Your task to perform on an android device: open app "Microsoft Authenticator" (install if not already installed) and go to login screen Image 0: 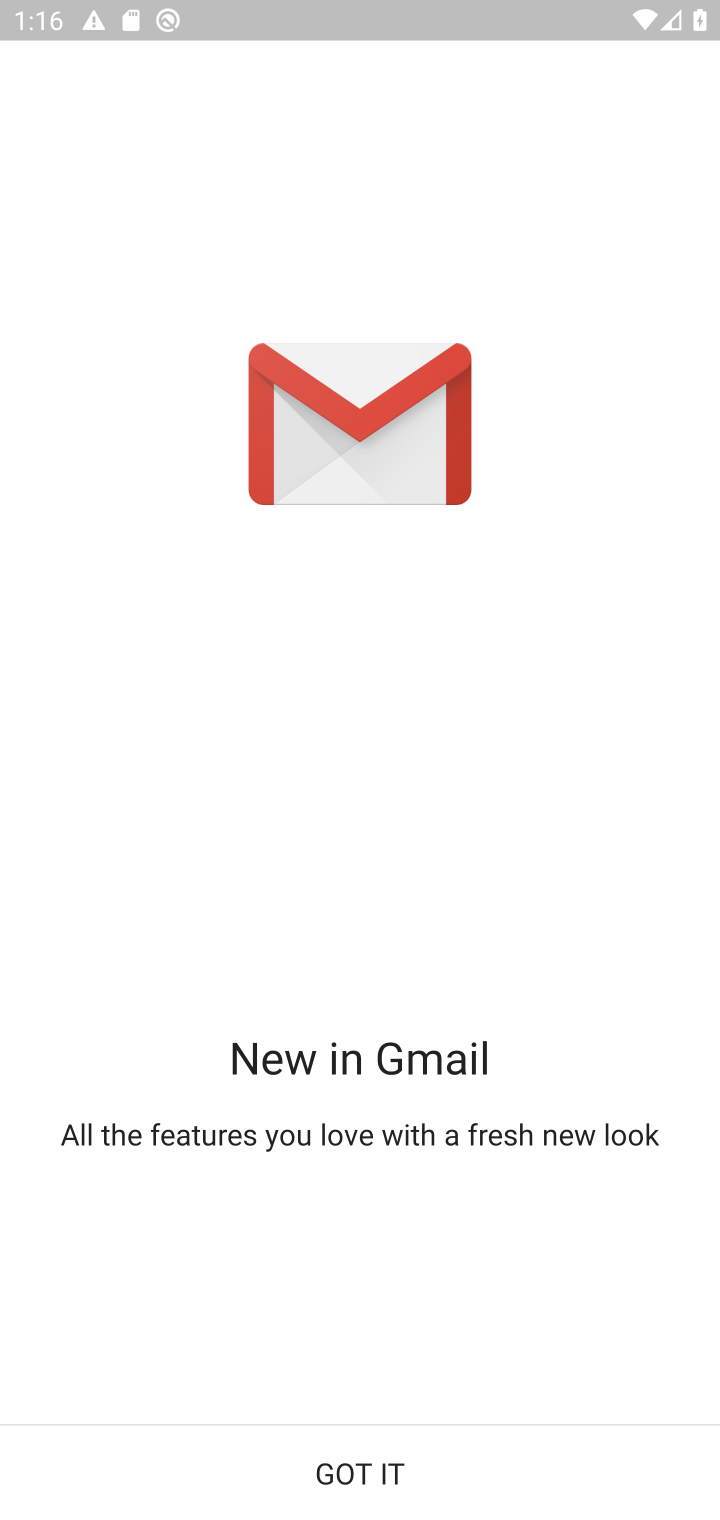
Step 0: press back button
Your task to perform on an android device: open app "Microsoft Authenticator" (install if not already installed) and go to login screen Image 1: 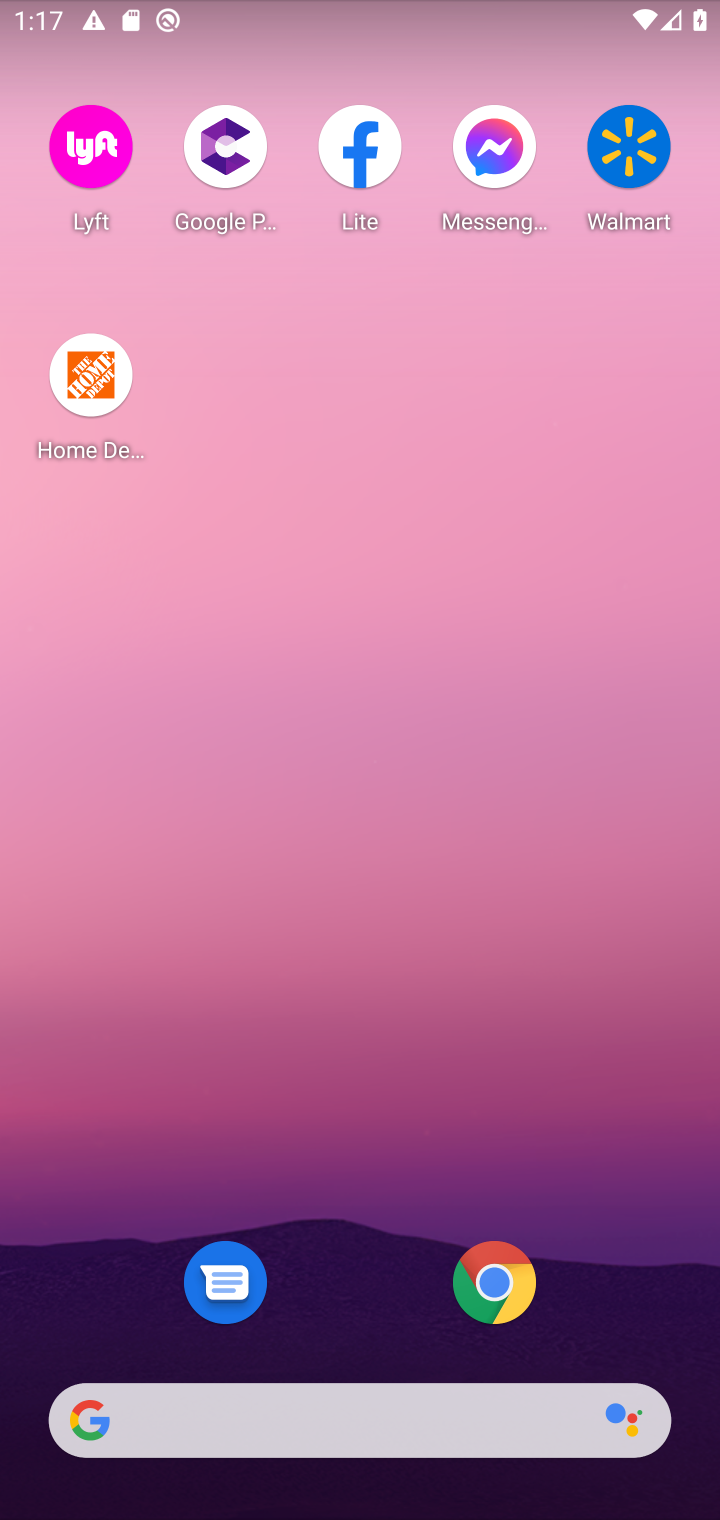
Step 1: drag from (411, 1357) to (316, 240)
Your task to perform on an android device: open app "Microsoft Authenticator" (install if not already installed) and go to login screen Image 2: 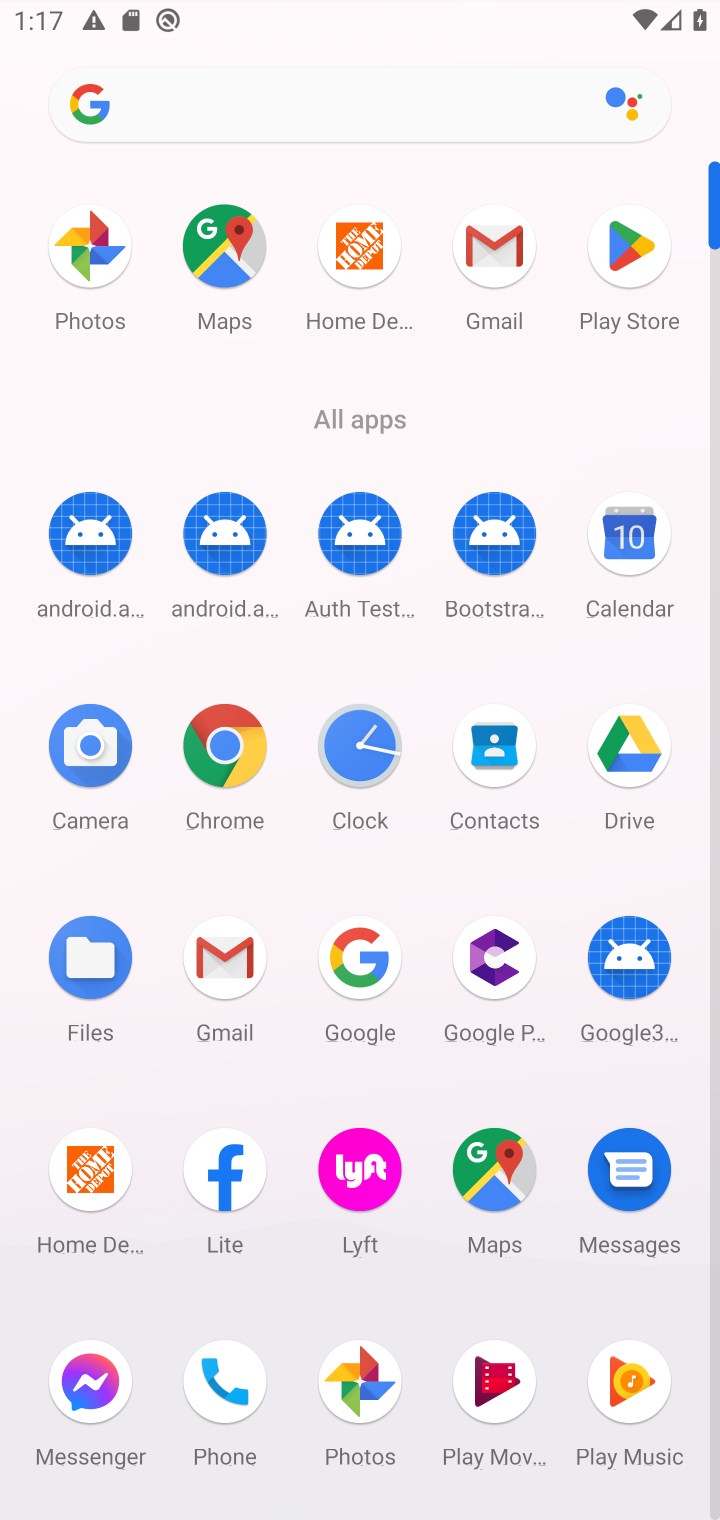
Step 2: click (623, 256)
Your task to perform on an android device: open app "Microsoft Authenticator" (install if not already installed) and go to login screen Image 3: 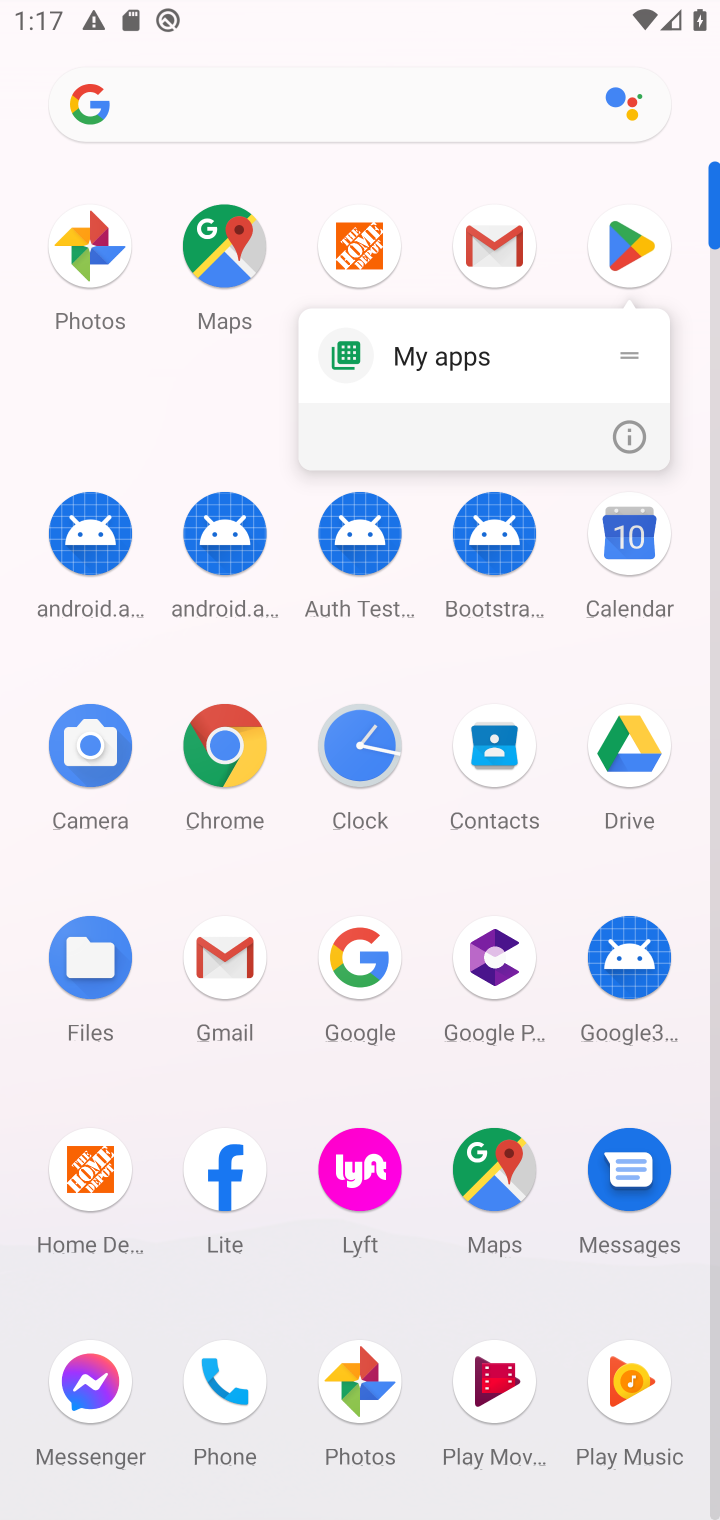
Step 3: click (644, 240)
Your task to perform on an android device: open app "Microsoft Authenticator" (install if not already installed) and go to login screen Image 4: 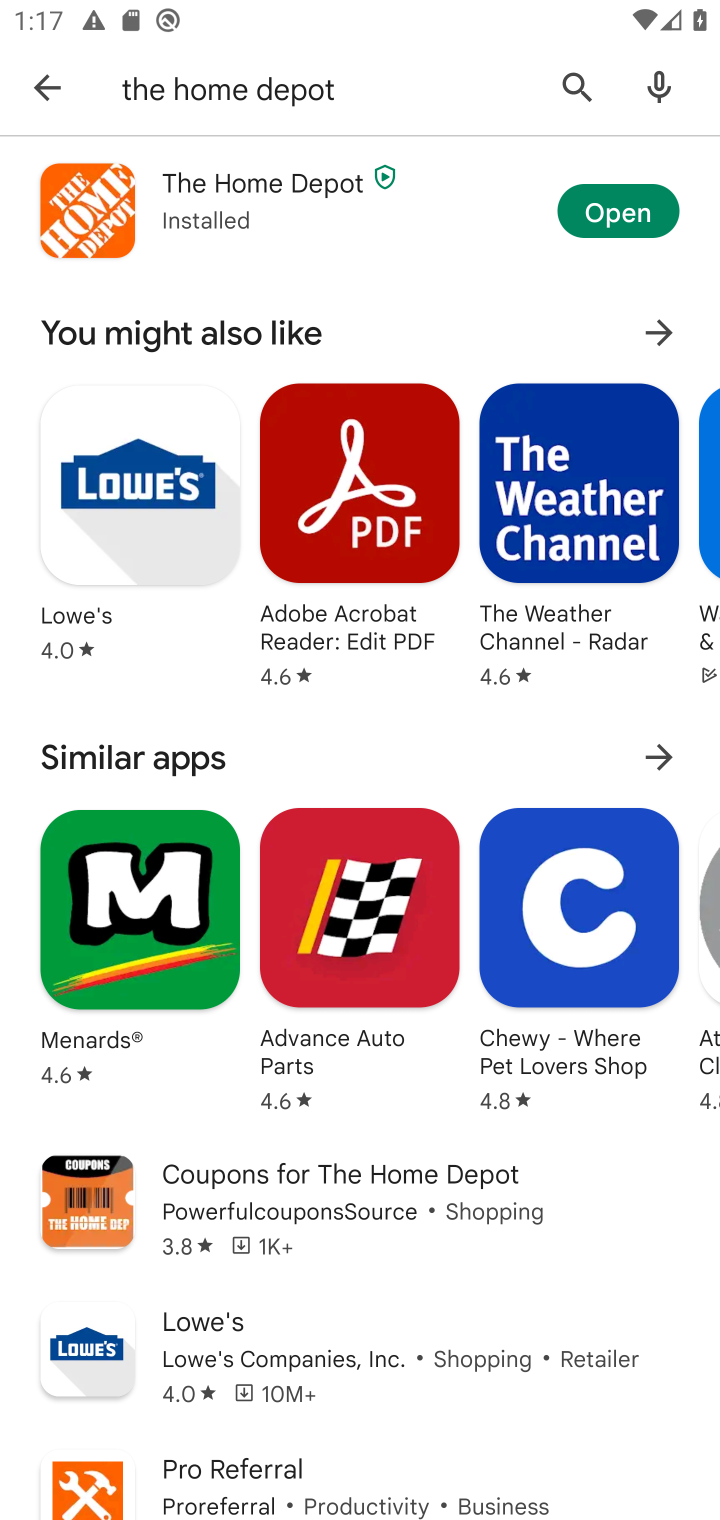
Step 4: click (566, 80)
Your task to perform on an android device: open app "Microsoft Authenticator" (install if not already installed) and go to login screen Image 5: 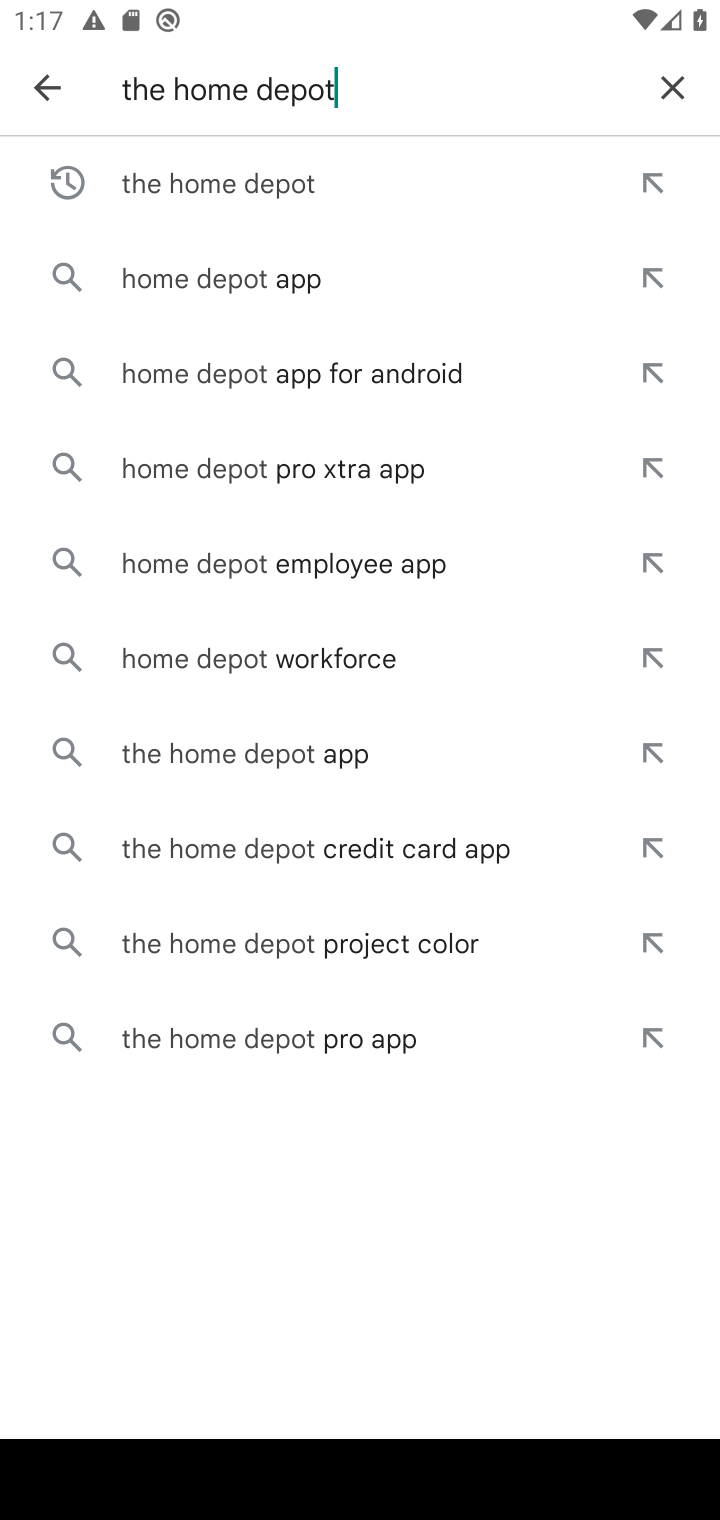
Step 5: click (692, 77)
Your task to perform on an android device: open app "Microsoft Authenticator" (install if not already installed) and go to login screen Image 6: 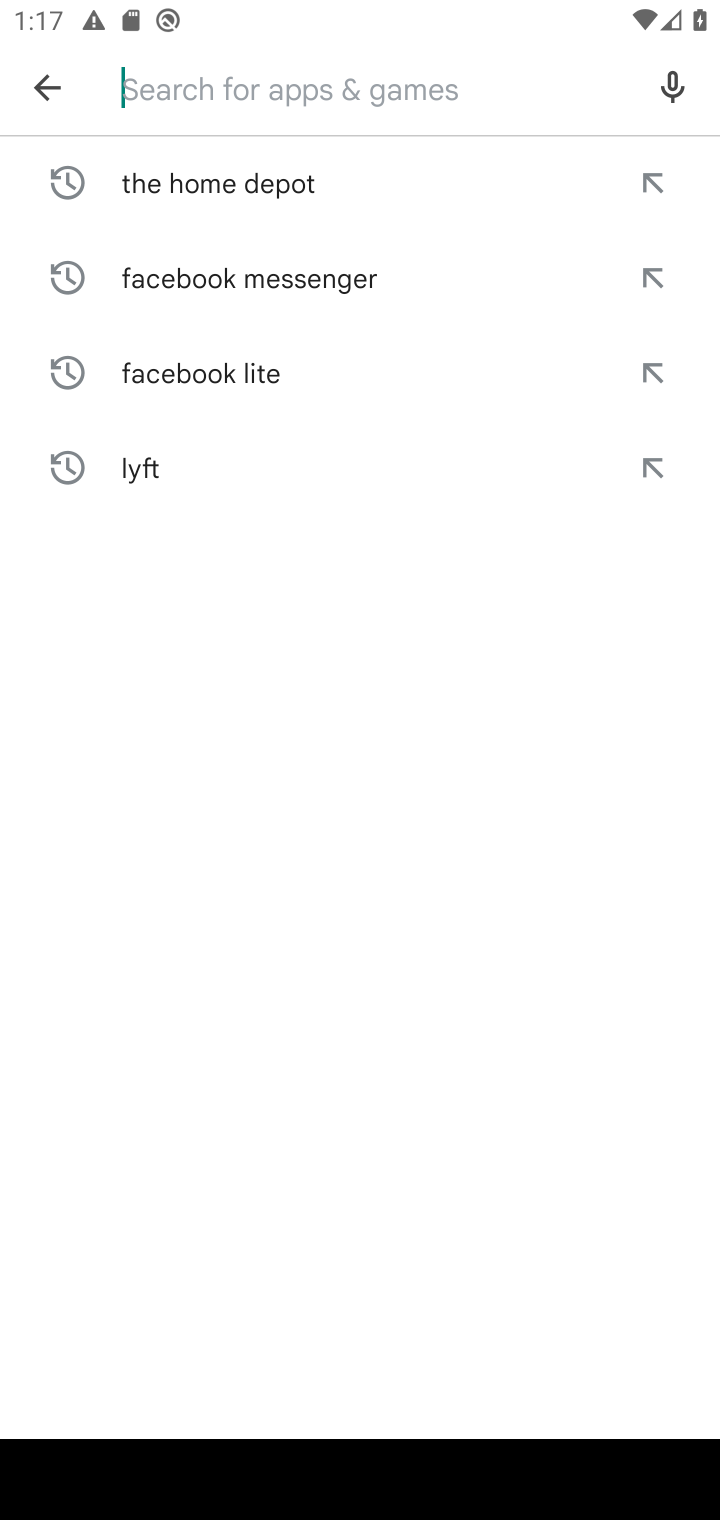
Step 6: type "Microsoft Authenticator"
Your task to perform on an android device: open app "Microsoft Authenticator" (install if not already installed) and go to login screen Image 7: 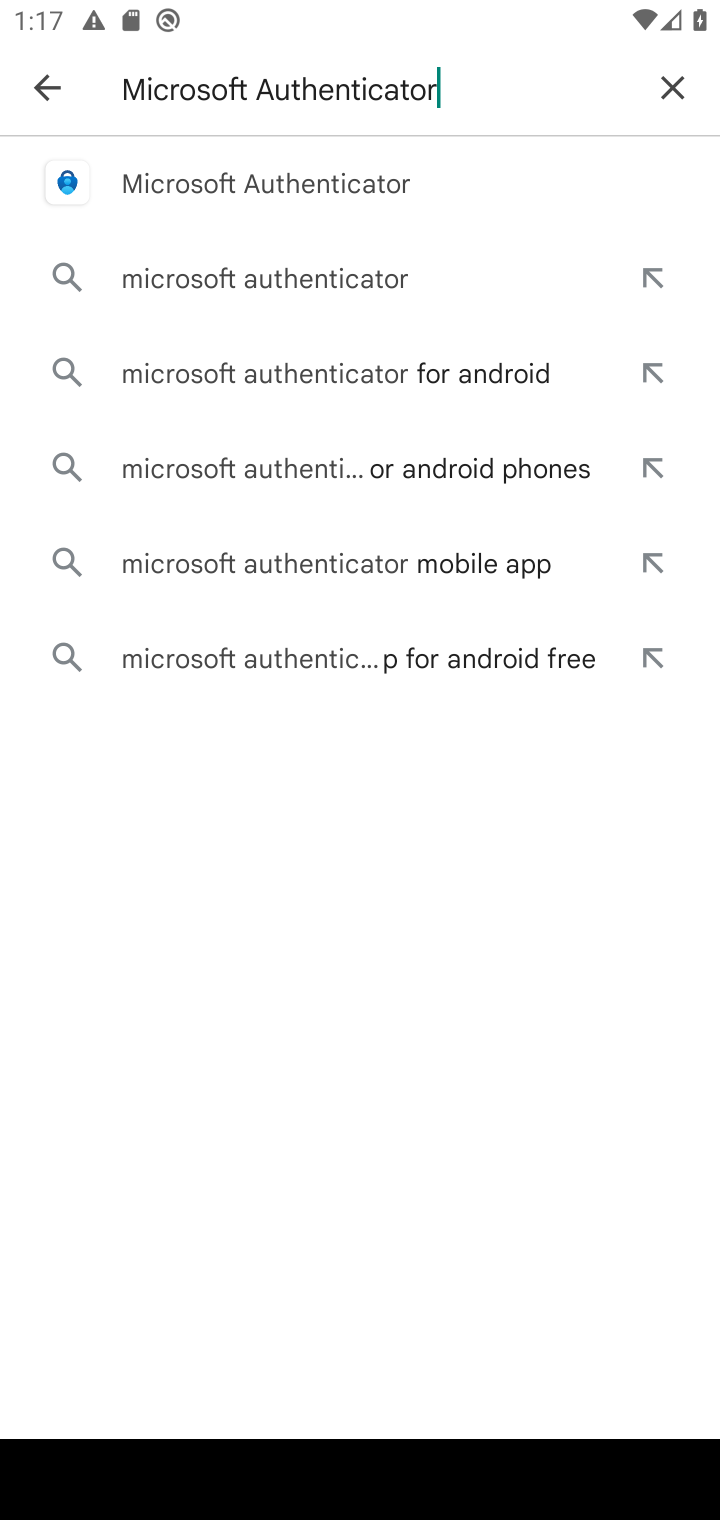
Step 7: click (203, 165)
Your task to perform on an android device: open app "Microsoft Authenticator" (install if not already installed) and go to login screen Image 8: 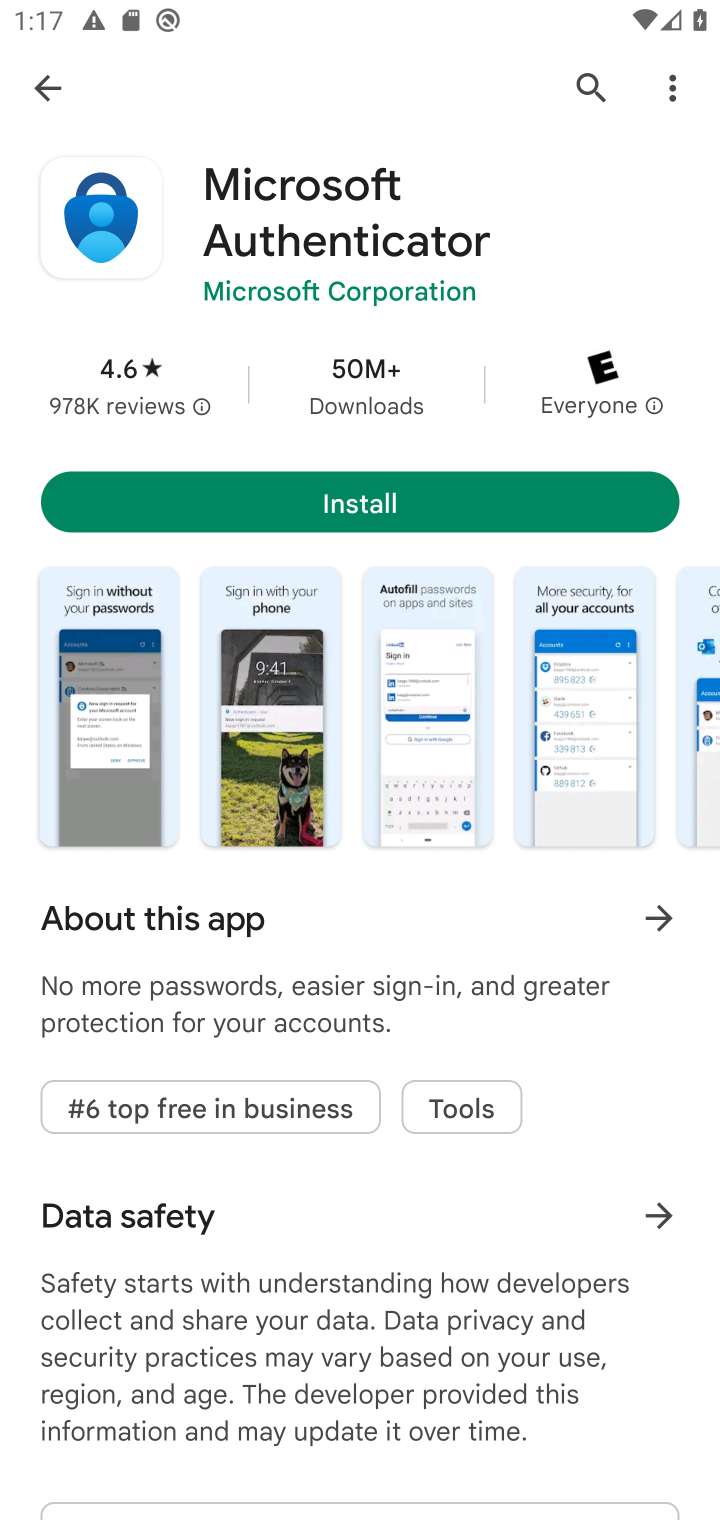
Step 8: click (225, 519)
Your task to perform on an android device: open app "Microsoft Authenticator" (install if not already installed) and go to login screen Image 9: 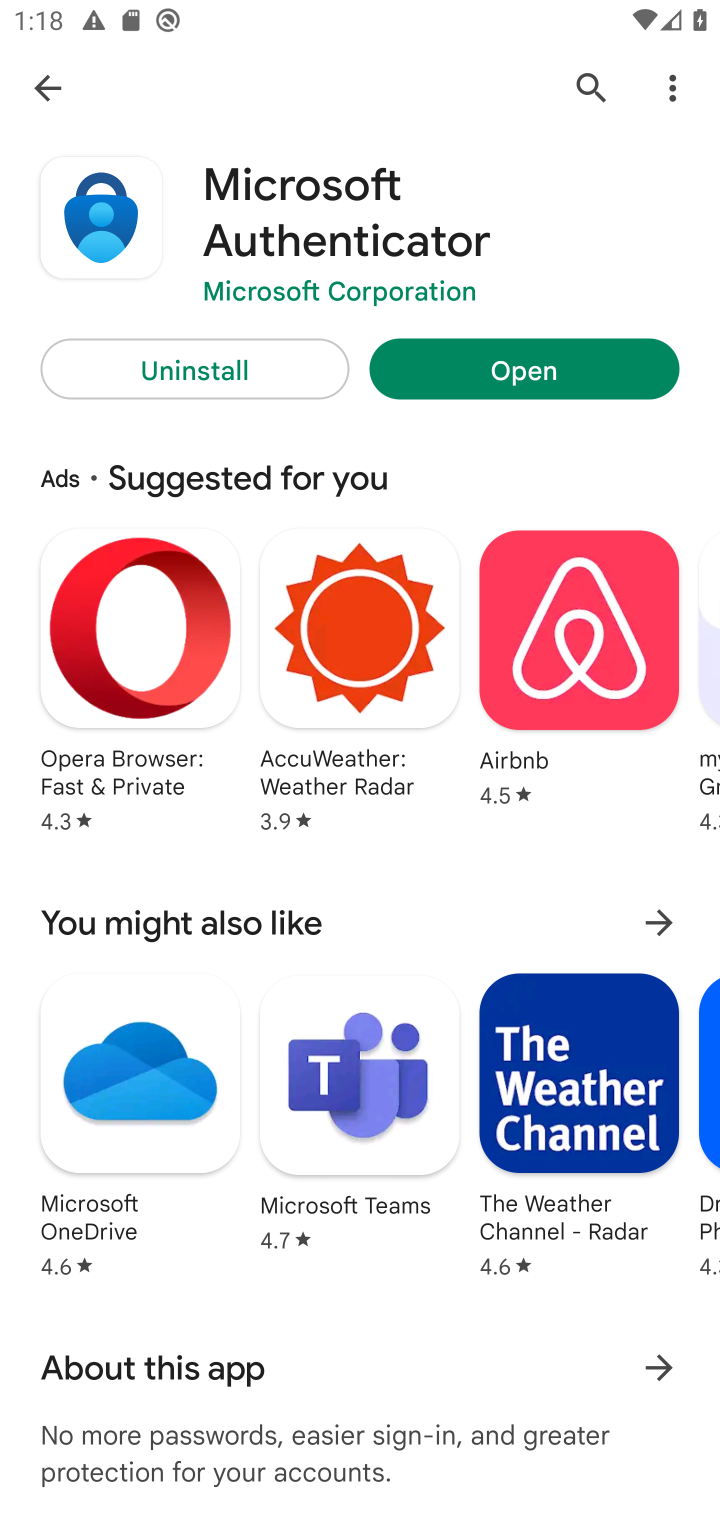
Step 9: click (453, 365)
Your task to perform on an android device: open app "Microsoft Authenticator" (install if not already installed) and go to login screen Image 10: 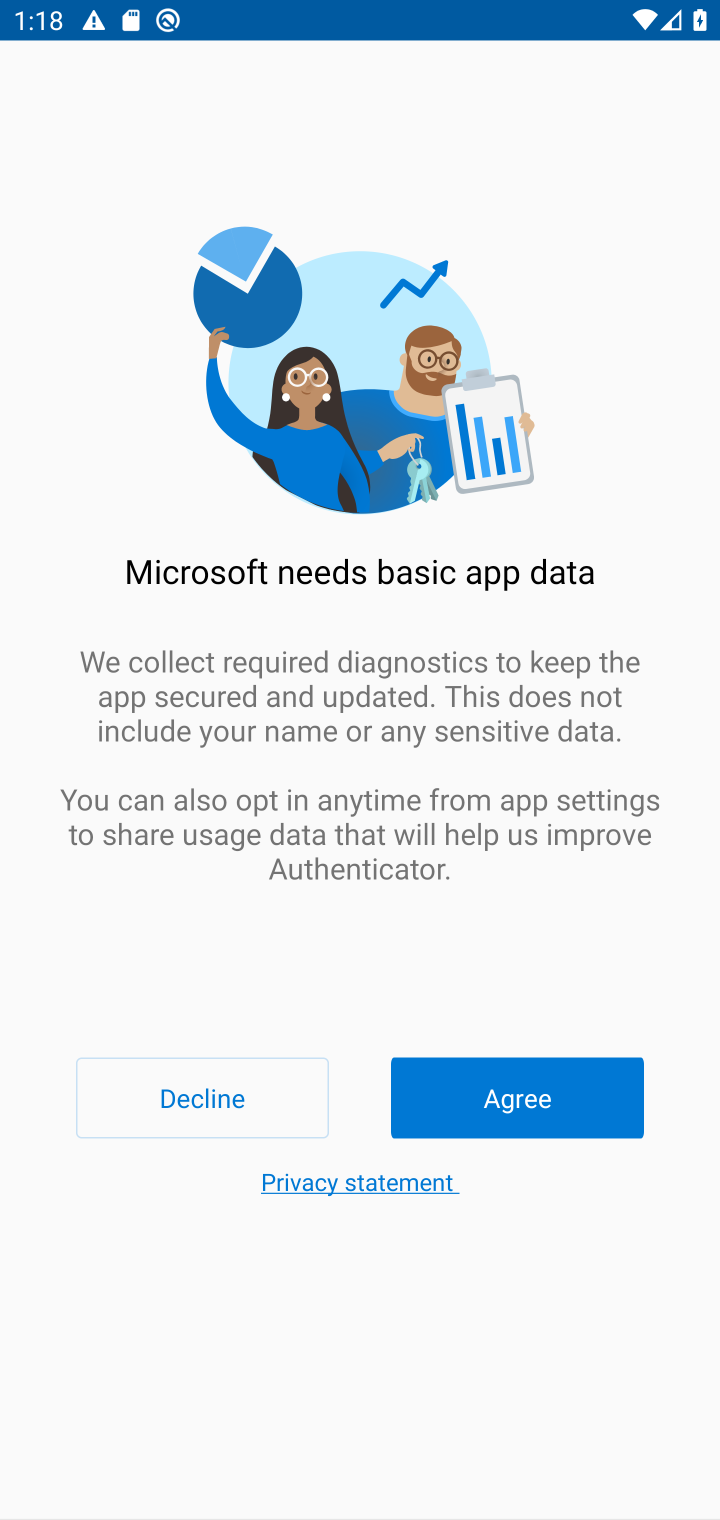
Step 10: click (626, 1071)
Your task to perform on an android device: open app "Microsoft Authenticator" (install if not already installed) and go to login screen Image 11: 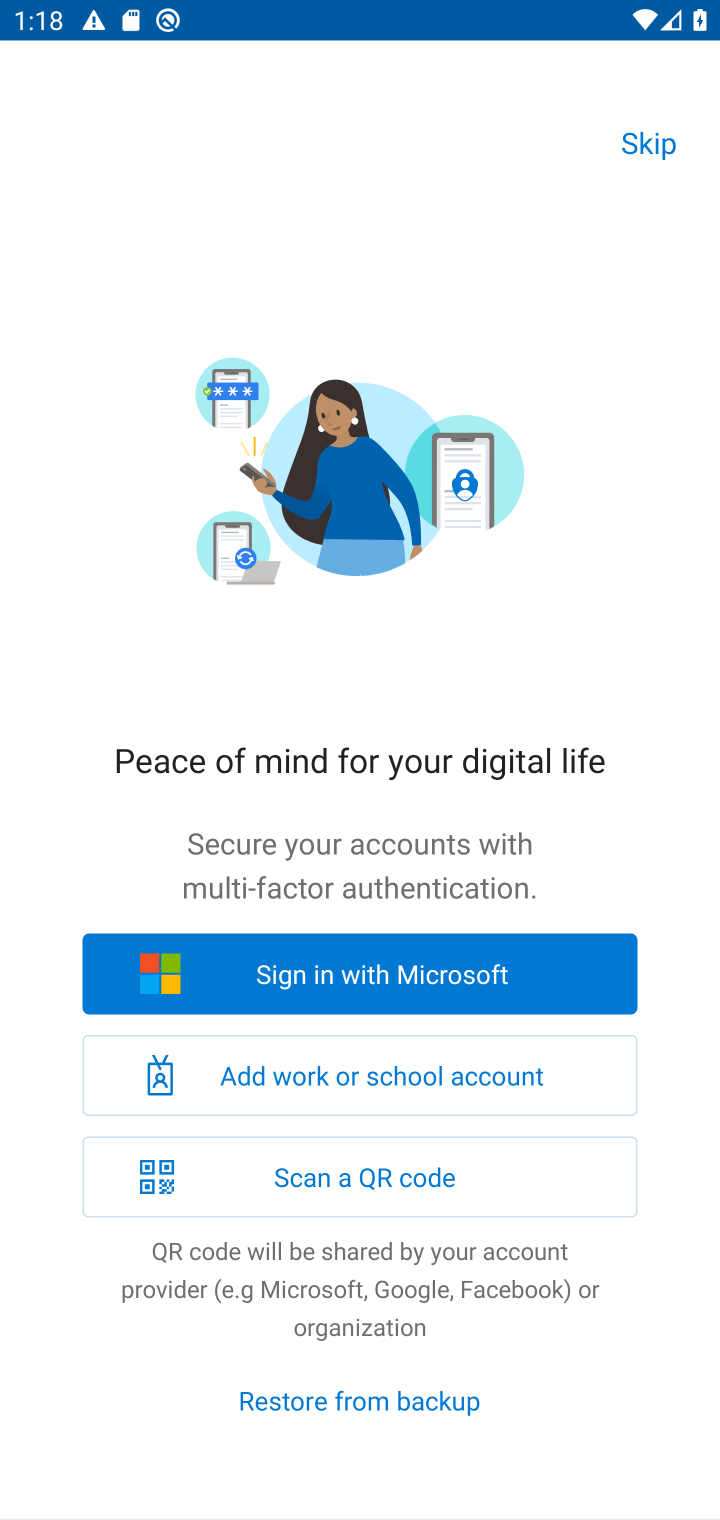
Step 11: click (646, 148)
Your task to perform on an android device: open app "Microsoft Authenticator" (install if not already installed) and go to login screen Image 12: 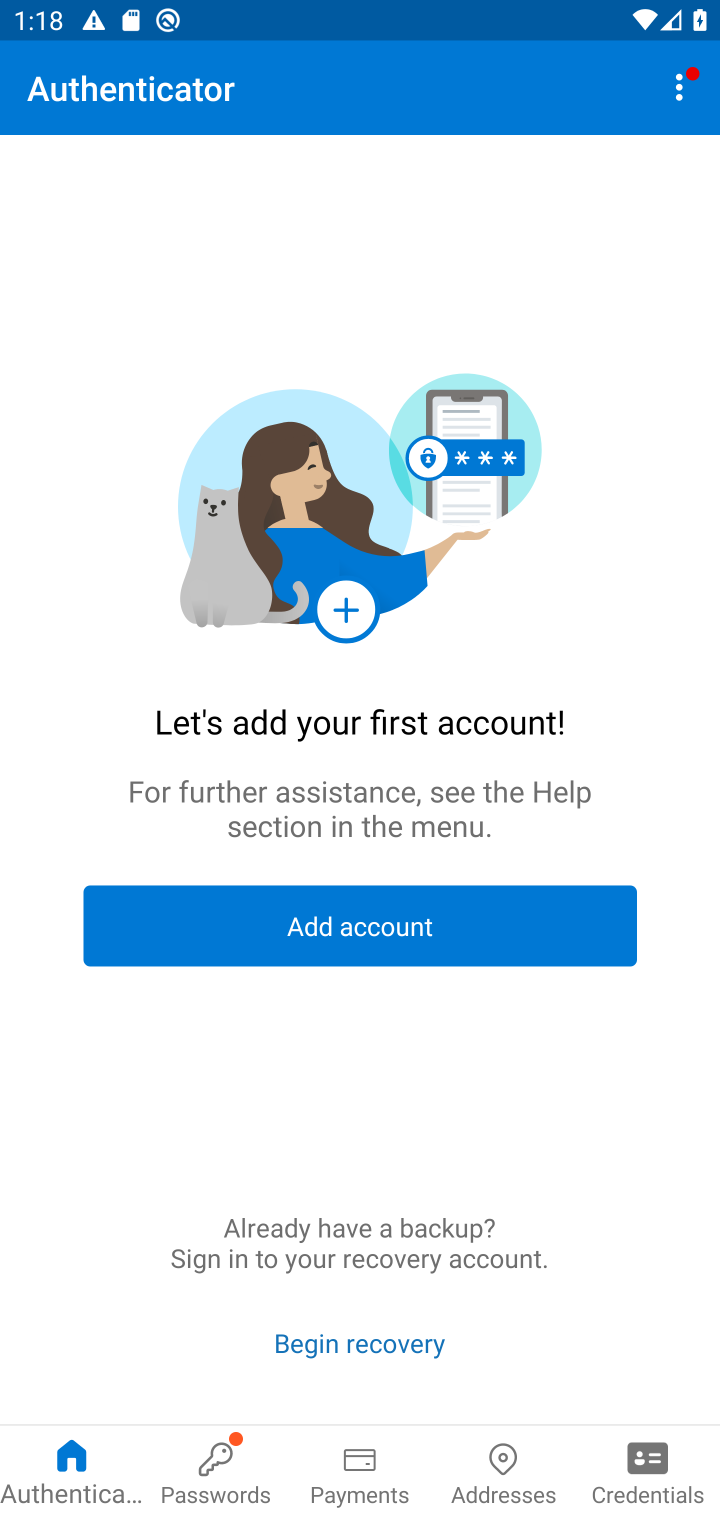
Step 12: click (552, 946)
Your task to perform on an android device: open app "Microsoft Authenticator" (install if not already installed) and go to login screen Image 13: 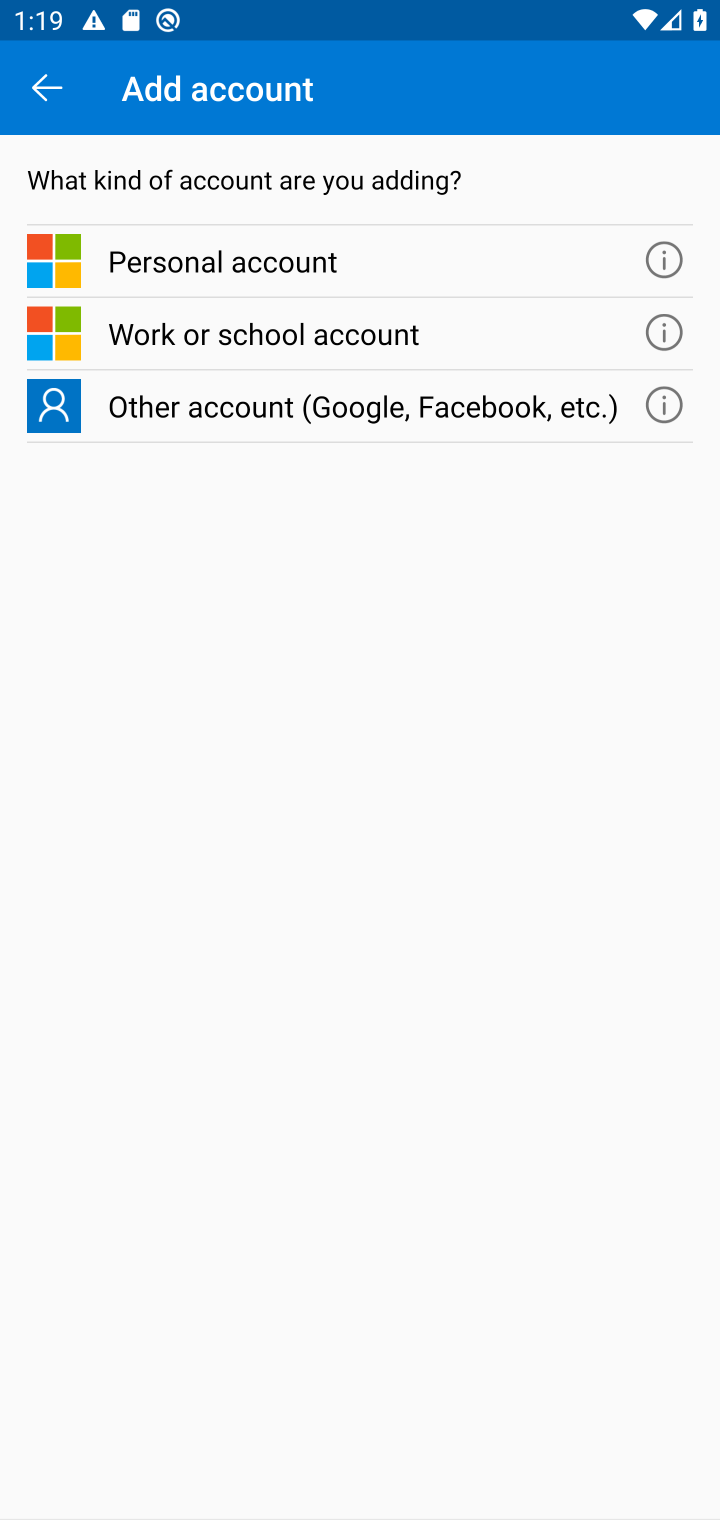
Step 13: click (206, 405)
Your task to perform on an android device: open app "Microsoft Authenticator" (install if not already installed) and go to login screen Image 14: 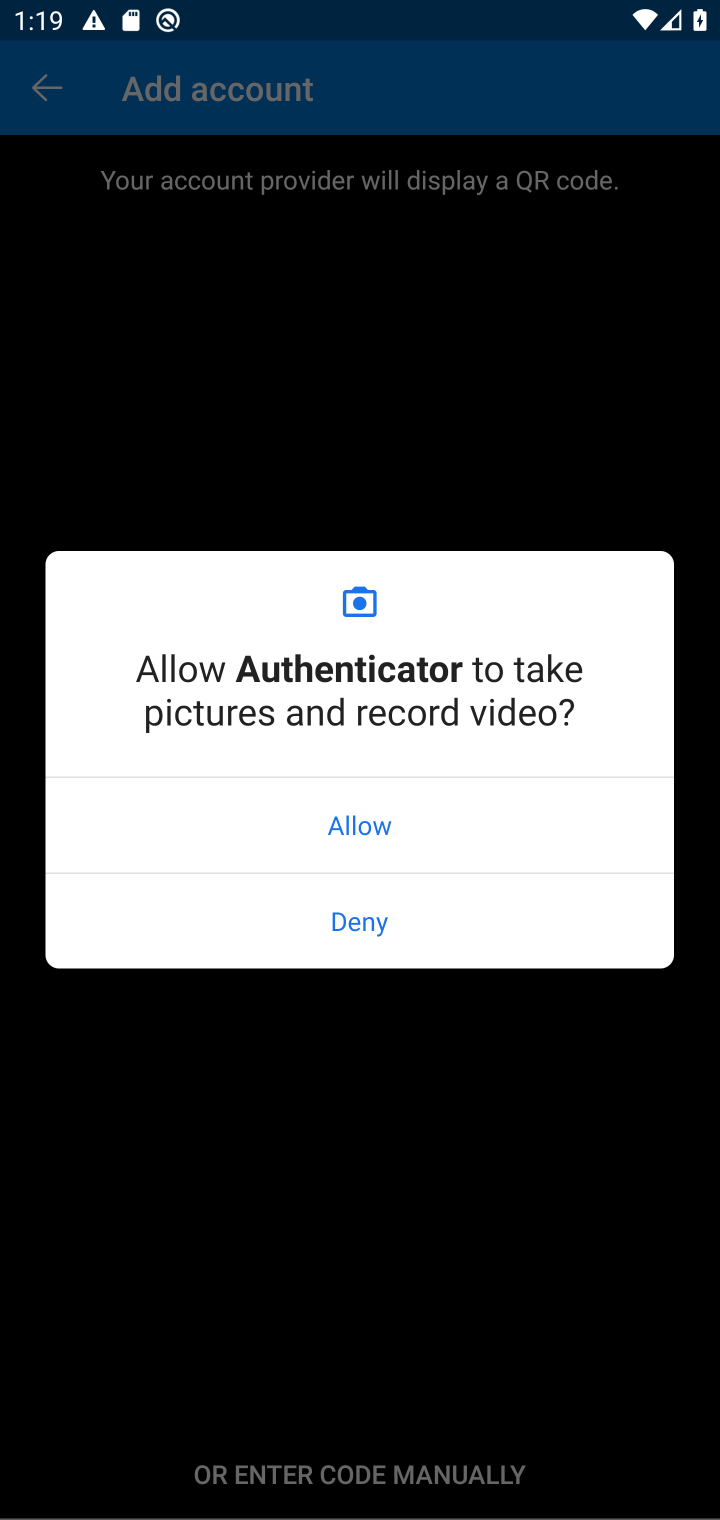
Step 14: task complete